Your task to perform on an android device: Open sound settings Image 0: 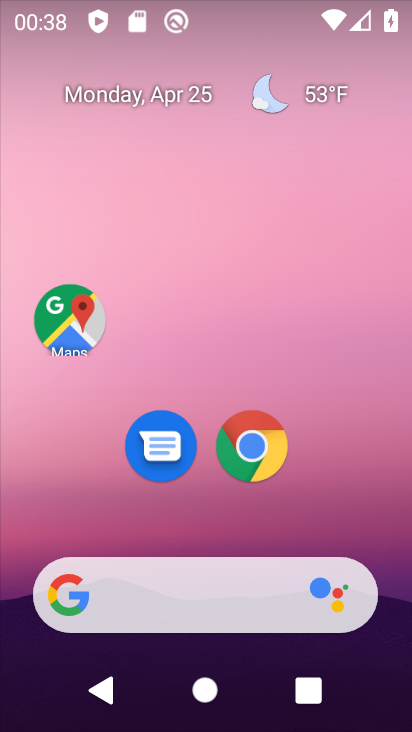
Step 0: drag from (202, 515) to (252, 2)
Your task to perform on an android device: Open sound settings Image 1: 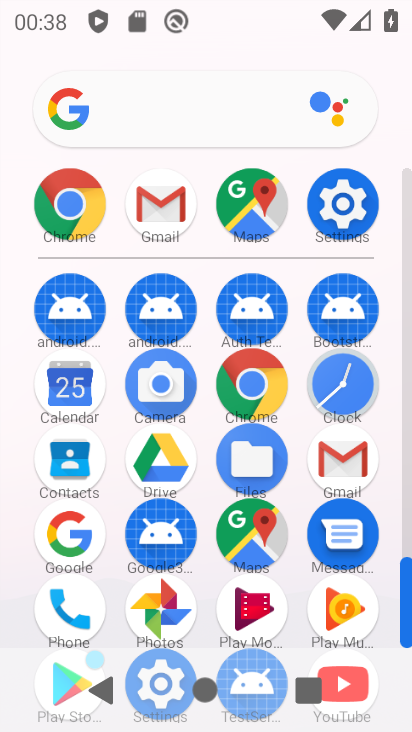
Step 1: click (360, 211)
Your task to perform on an android device: Open sound settings Image 2: 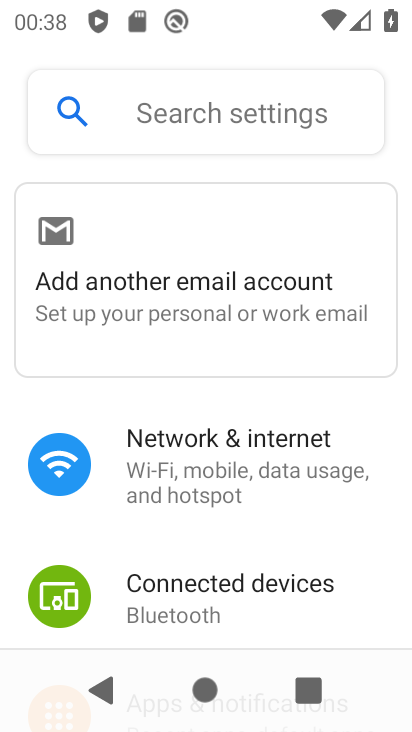
Step 2: drag from (215, 554) to (284, 163)
Your task to perform on an android device: Open sound settings Image 3: 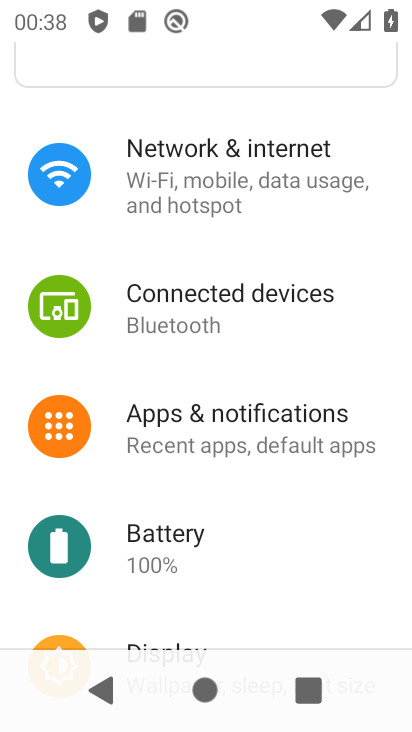
Step 3: drag from (213, 518) to (287, 172)
Your task to perform on an android device: Open sound settings Image 4: 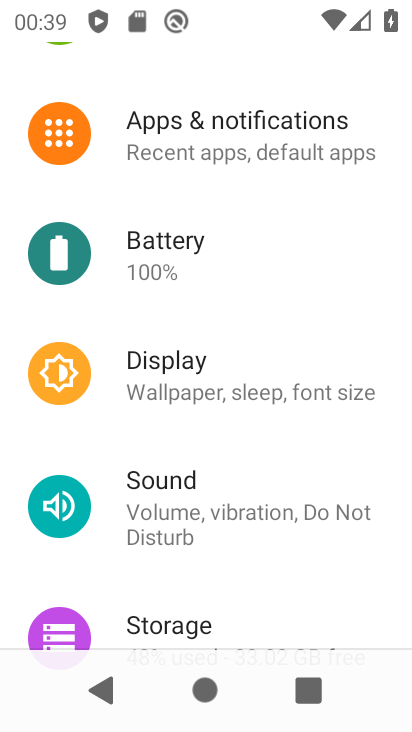
Step 4: click (197, 506)
Your task to perform on an android device: Open sound settings Image 5: 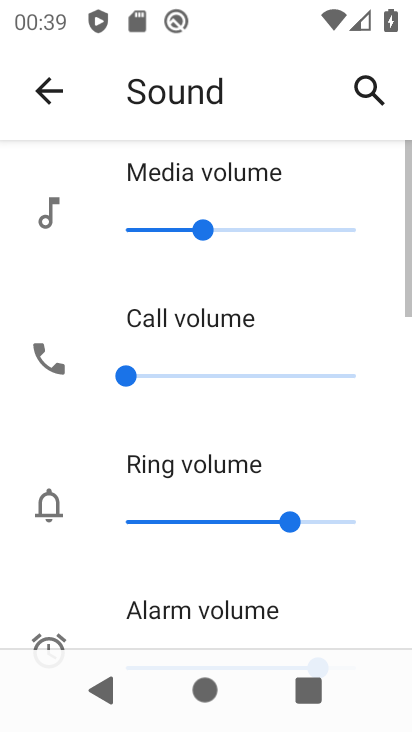
Step 5: task complete